Your task to perform on an android device: Search for vegetarian restaurants on Maps Image 0: 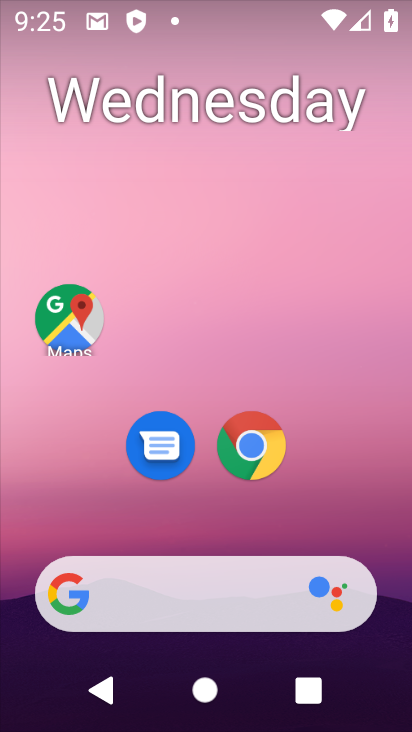
Step 0: click (65, 319)
Your task to perform on an android device: Search for vegetarian restaurants on Maps Image 1: 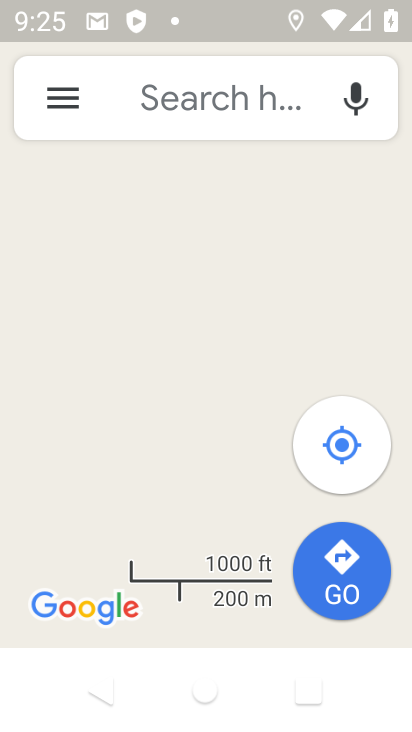
Step 1: click (197, 77)
Your task to perform on an android device: Search for vegetarian restaurants on Maps Image 2: 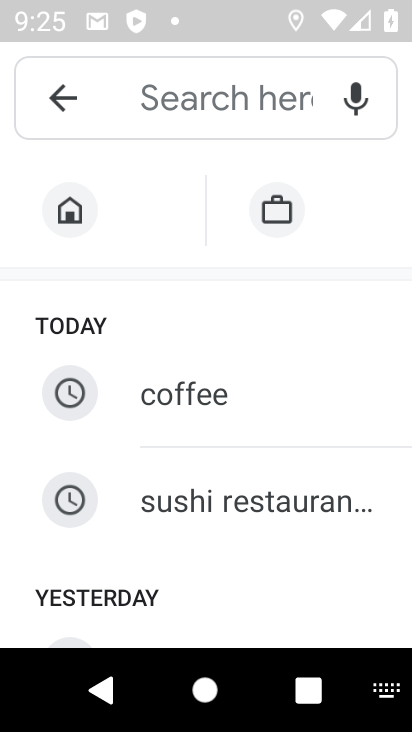
Step 2: type "vegetarian restaurants"
Your task to perform on an android device: Search for vegetarian restaurants on Maps Image 3: 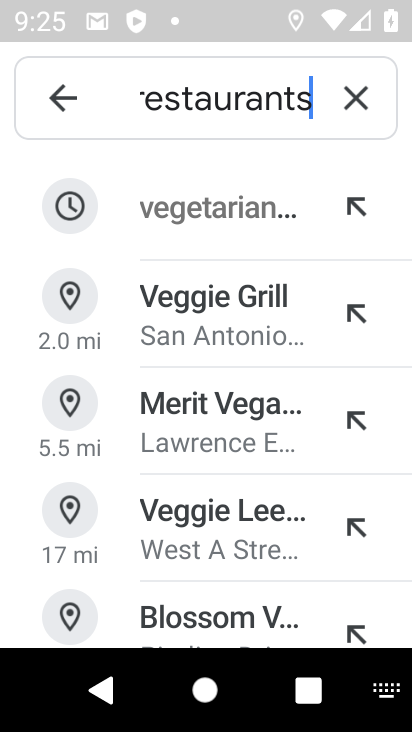
Step 3: click (224, 203)
Your task to perform on an android device: Search for vegetarian restaurants on Maps Image 4: 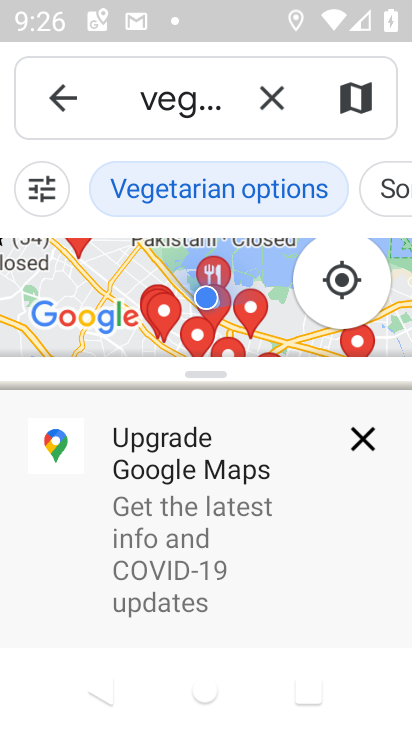
Step 4: click (363, 431)
Your task to perform on an android device: Search for vegetarian restaurants on Maps Image 5: 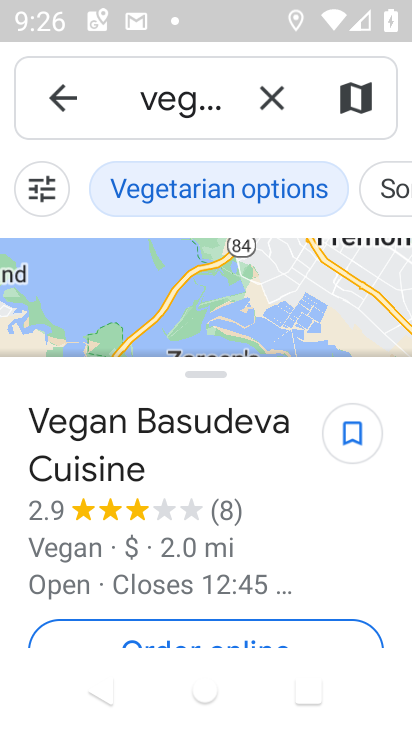
Step 5: task complete